Your task to perform on an android device: toggle location history Image 0: 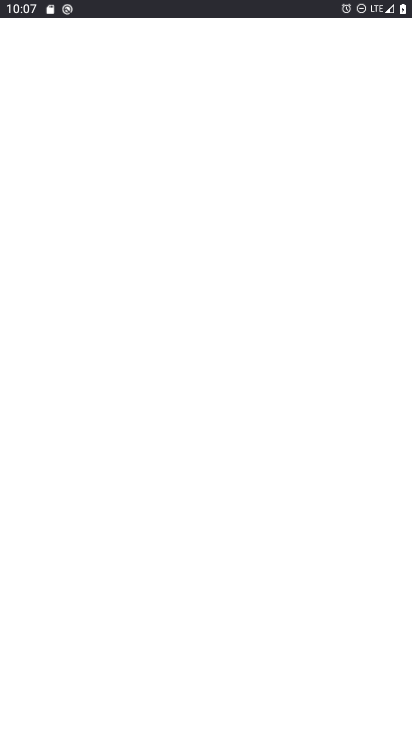
Step 0: drag from (308, 707) to (197, 112)
Your task to perform on an android device: toggle location history Image 1: 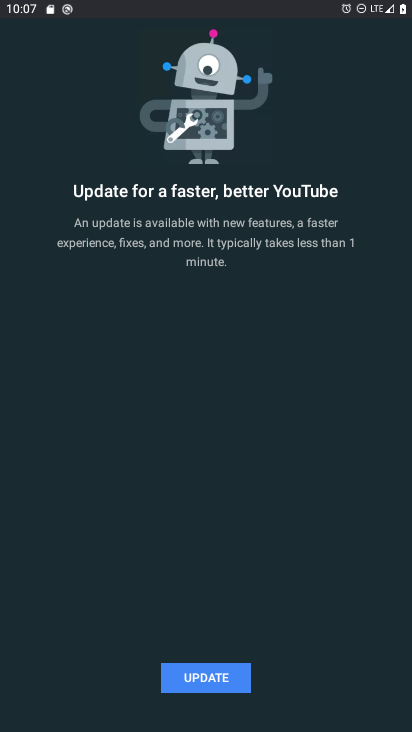
Step 1: press back button
Your task to perform on an android device: toggle location history Image 2: 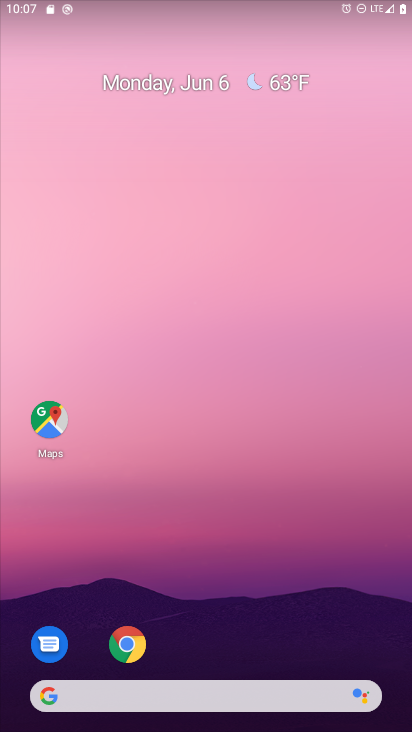
Step 2: drag from (221, 712) to (159, 62)
Your task to perform on an android device: toggle location history Image 3: 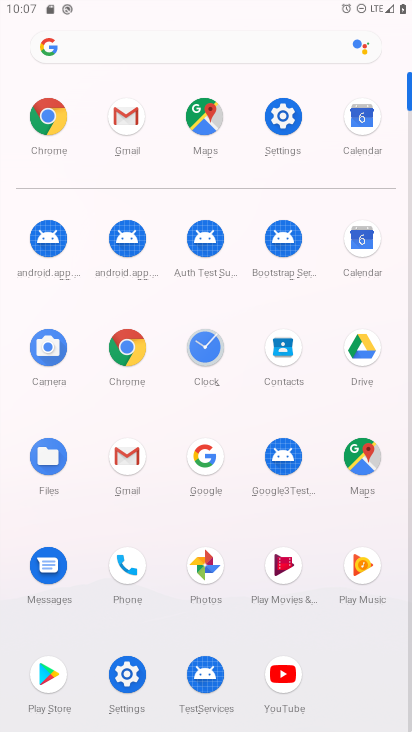
Step 3: click (286, 125)
Your task to perform on an android device: toggle location history Image 4: 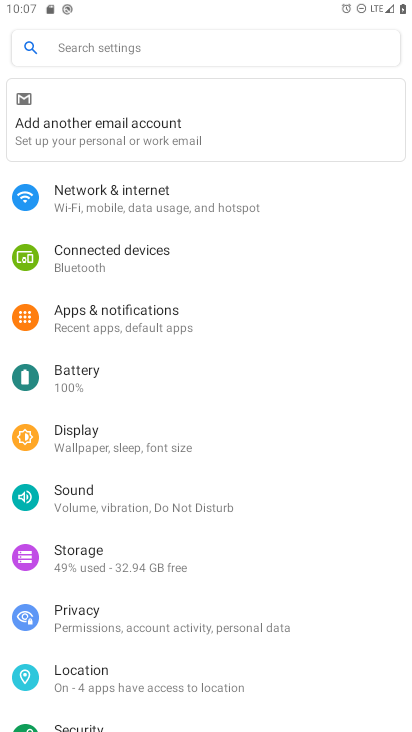
Step 4: click (150, 50)
Your task to perform on an android device: toggle location history Image 5: 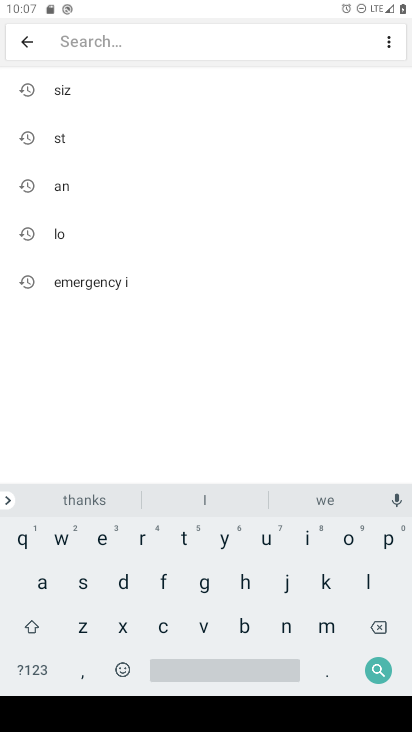
Step 5: click (80, 248)
Your task to perform on an android device: toggle location history Image 6: 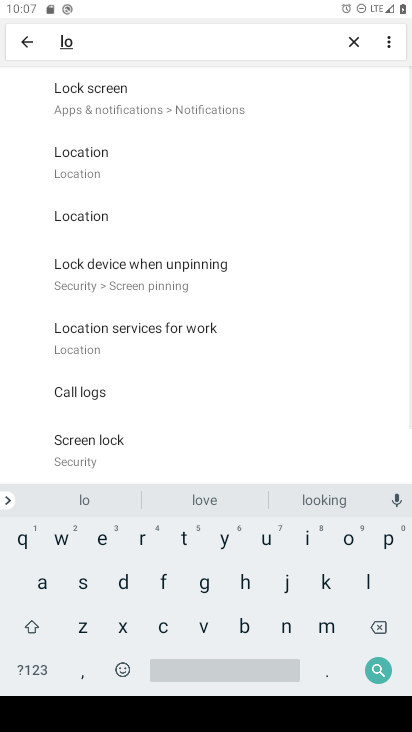
Step 6: click (161, 152)
Your task to perform on an android device: toggle location history Image 7: 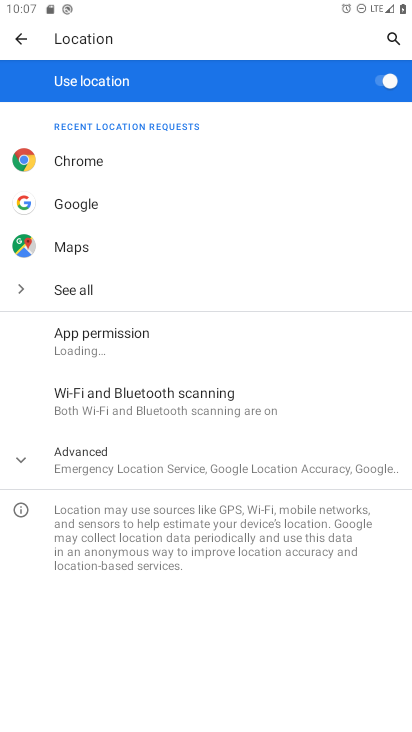
Step 7: task complete